Your task to perform on an android device: Open Google Chrome and click the shortcut for Amazon.com Image 0: 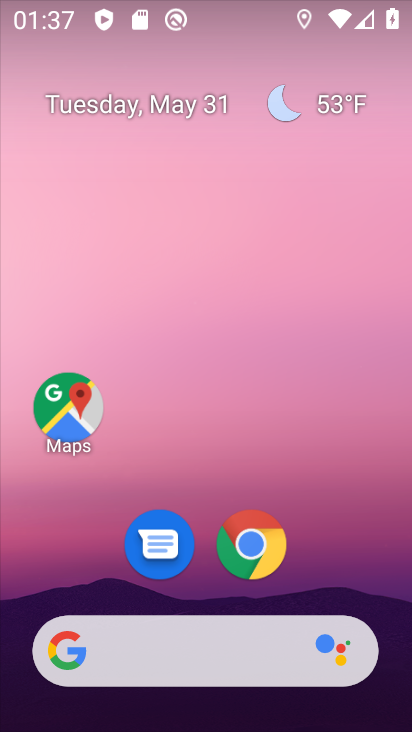
Step 0: click (265, 539)
Your task to perform on an android device: Open Google Chrome and click the shortcut for Amazon.com Image 1: 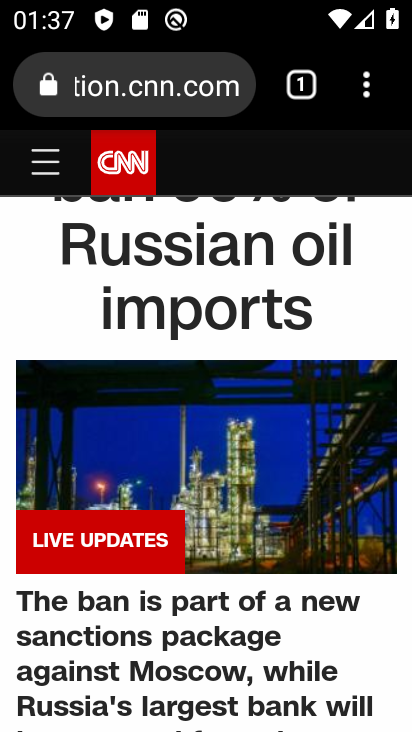
Step 1: click (190, 106)
Your task to perform on an android device: Open Google Chrome and click the shortcut for Amazon.com Image 2: 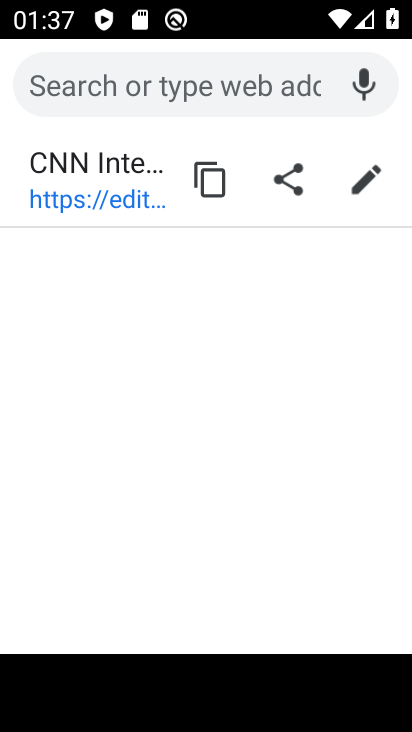
Step 2: type "amazon.com"
Your task to perform on an android device: Open Google Chrome and click the shortcut for Amazon.com Image 3: 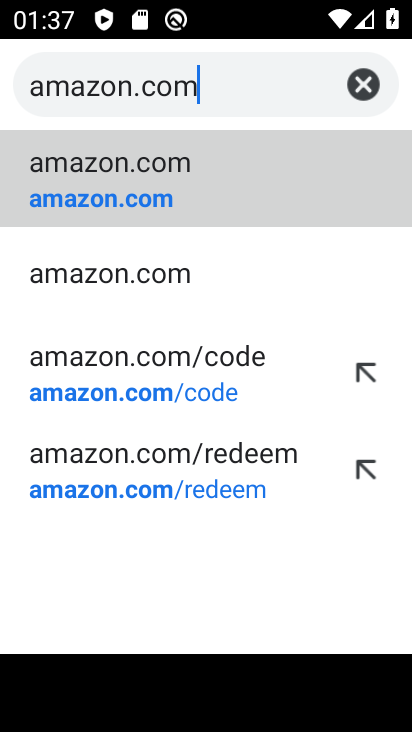
Step 3: click (170, 184)
Your task to perform on an android device: Open Google Chrome and click the shortcut for Amazon.com Image 4: 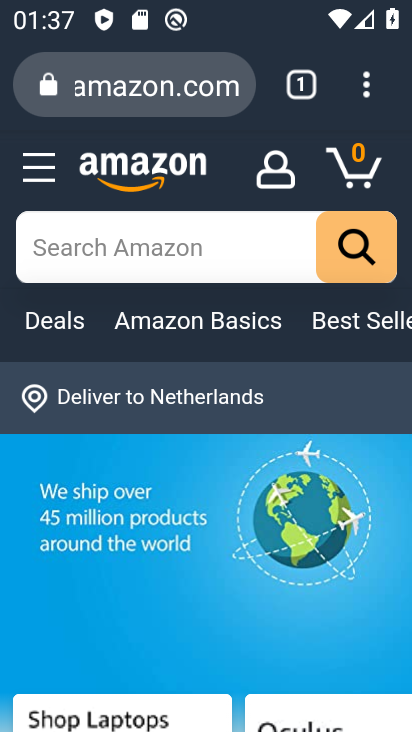
Step 4: task complete